Your task to perform on an android device: open app "HBO Max: Stream TV & Movies" (install if not already installed), go to login, and select forgot password Image 0: 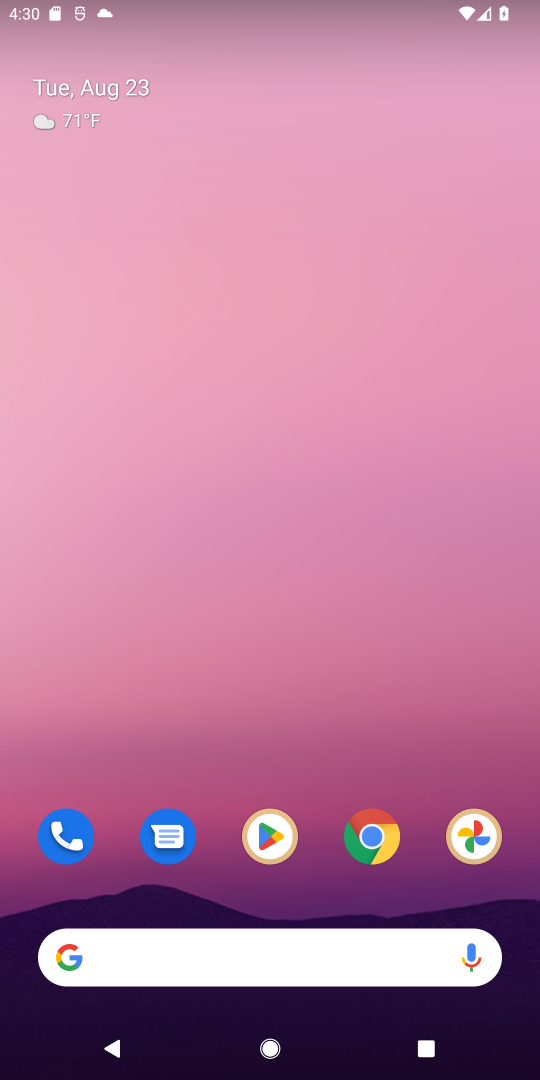
Step 0: click (272, 837)
Your task to perform on an android device: open app "HBO Max: Stream TV & Movies" (install if not already installed), go to login, and select forgot password Image 1: 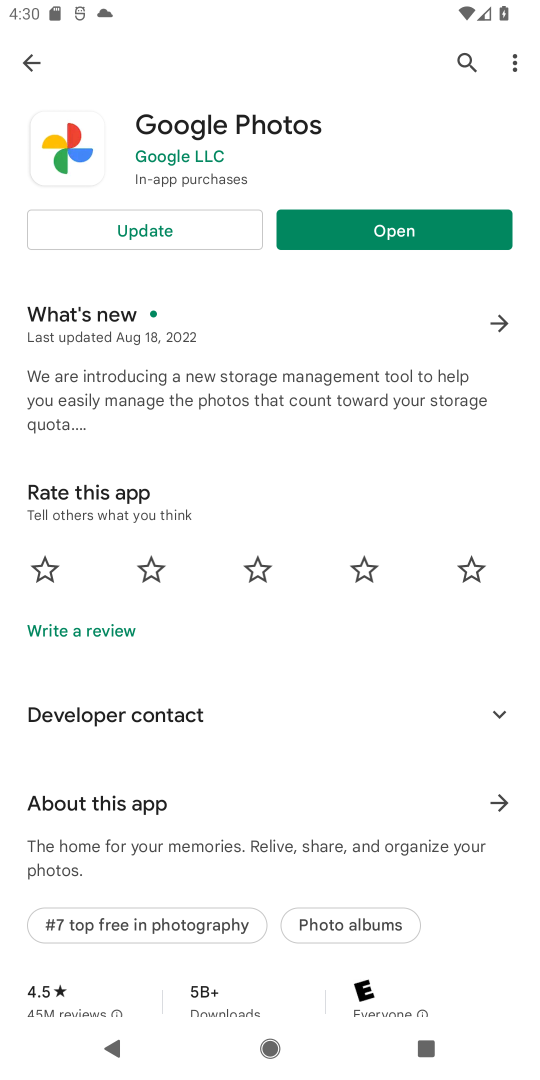
Step 1: click (457, 57)
Your task to perform on an android device: open app "HBO Max: Stream TV & Movies" (install if not already installed), go to login, and select forgot password Image 2: 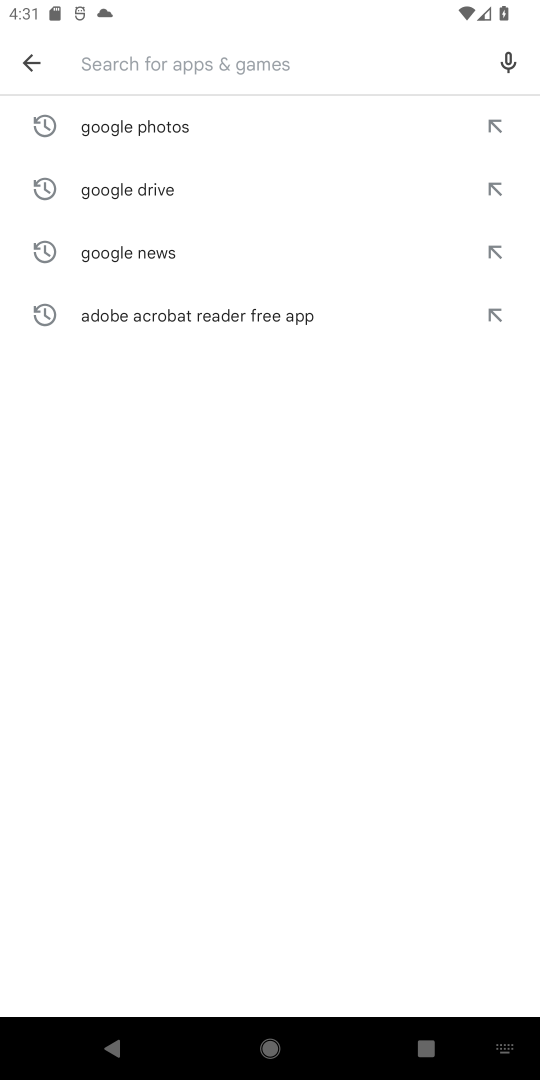
Step 2: type "HBO Max: Stream TV & Movies"
Your task to perform on an android device: open app "HBO Max: Stream TV & Movies" (install if not already installed), go to login, and select forgot password Image 3: 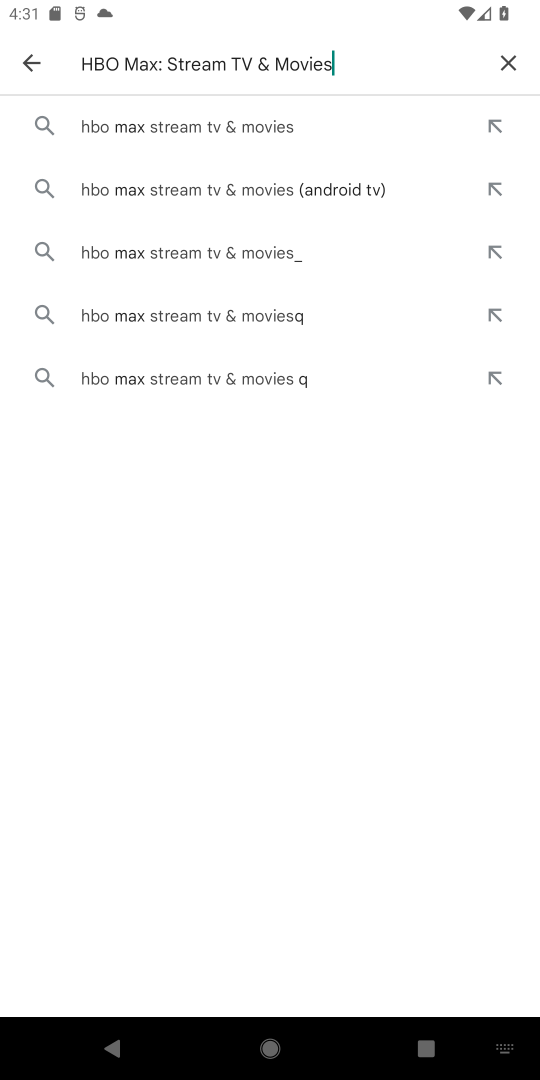
Step 3: click (153, 131)
Your task to perform on an android device: open app "HBO Max: Stream TV & Movies" (install if not already installed), go to login, and select forgot password Image 4: 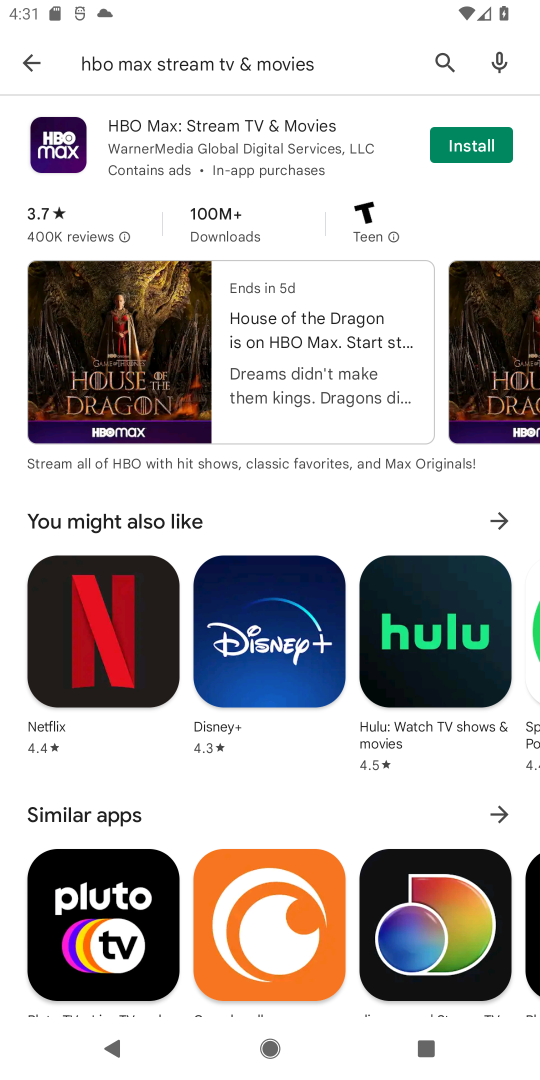
Step 4: click (475, 148)
Your task to perform on an android device: open app "HBO Max: Stream TV & Movies" (install if not already installed), go to login, and select forgot password Image 5: 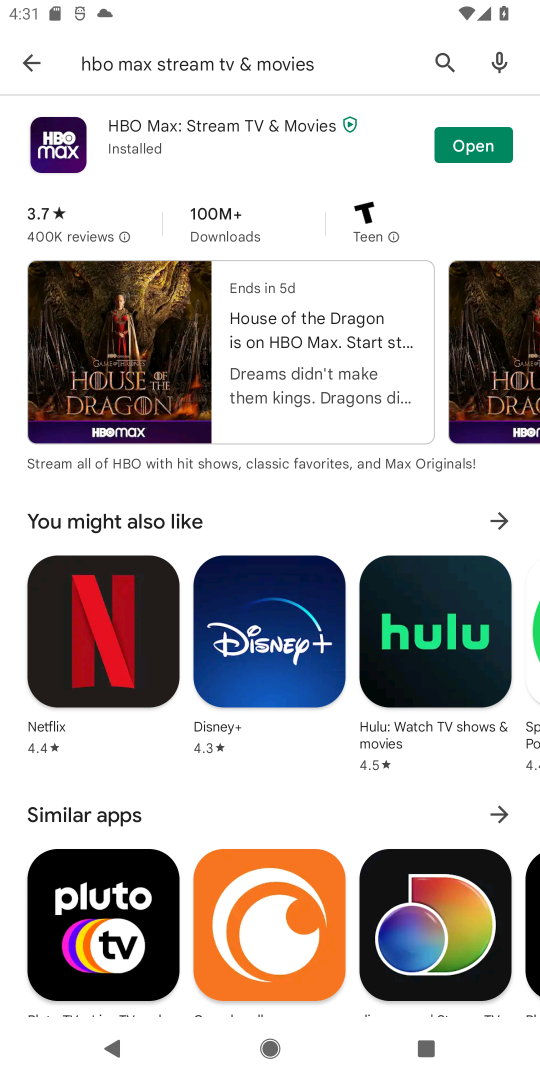
Step 5: click (167, 121)
Your task to perform on an android device: open app "HBO Max: Stream TV & Movies" (install if not already installed), go to login, and select forgot password Image 6: 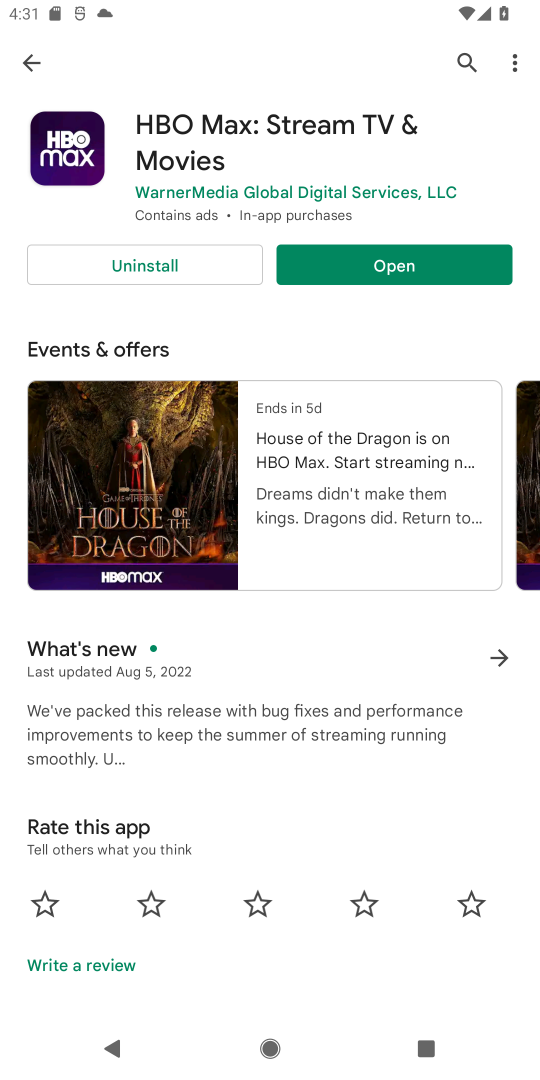
Step 6: click (394, 268)
Your task to perform on an android device: open app "HBO Max: Stream TV & Movies" (install if not already installed), go to login, and select forgot password Image 7: 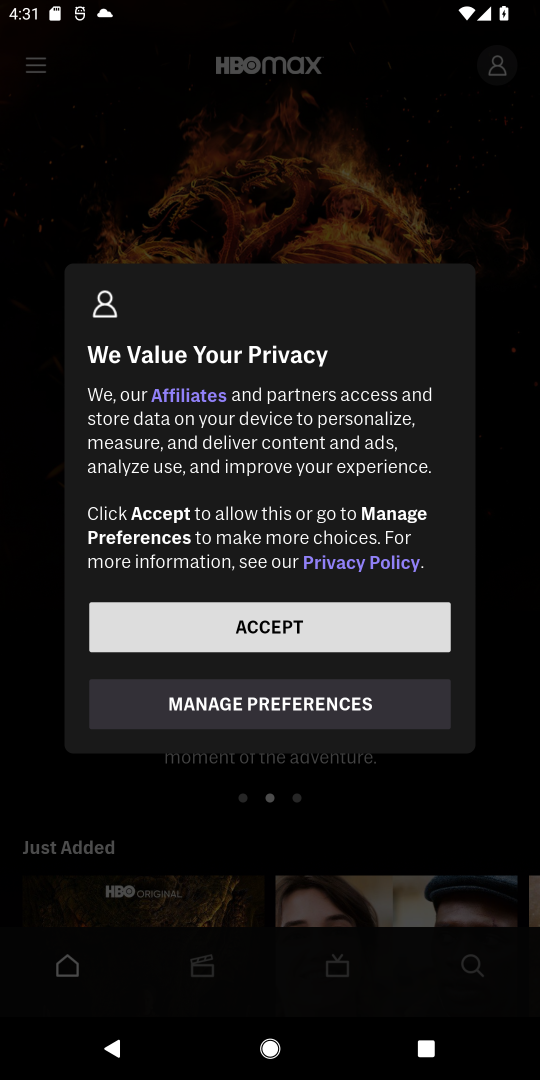
Step 7: click (288, 625)
Your task to perform on an android device: open app "HBO Max: Stream TV & Movies" (install if not already installed), go to login, and select forgot password Image 8: 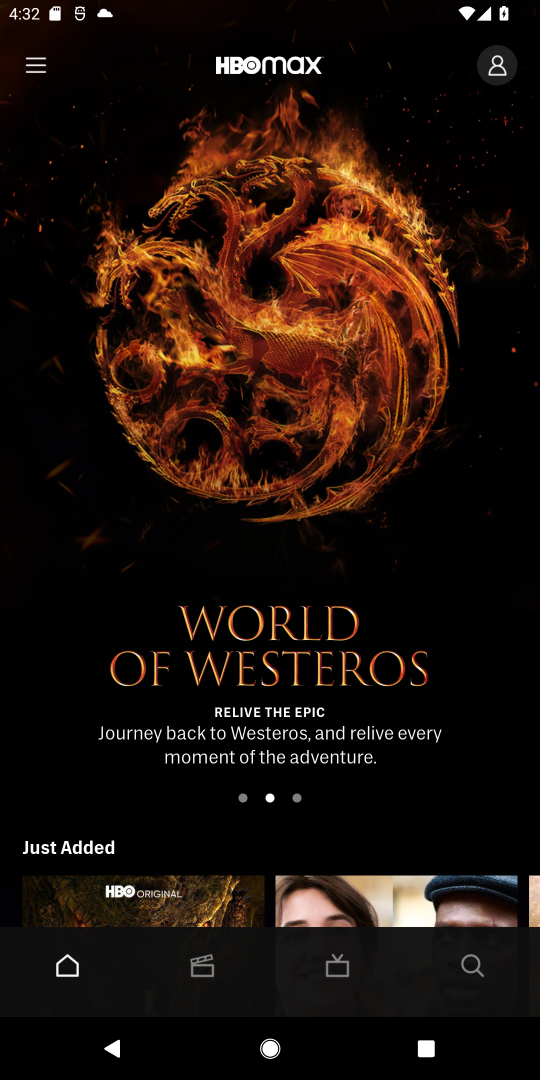
Step 8: click (499, 65)
Your task to perform on an android device: open app "HBO Max: Stream TV & Movies" (install if not already installed), go to login, and select forgot password Image 9: 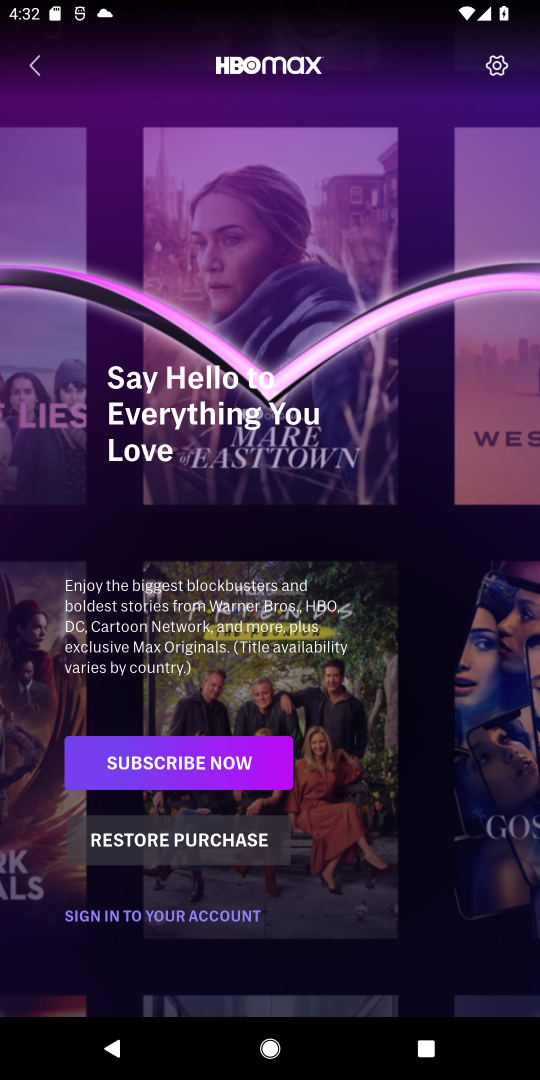
Step 9: click (135, 916)
Your task to perform on an android device: open app "HBO Max: Stream TV & Movies" (install if not already installed), go to login, and select forgot password Image 10: 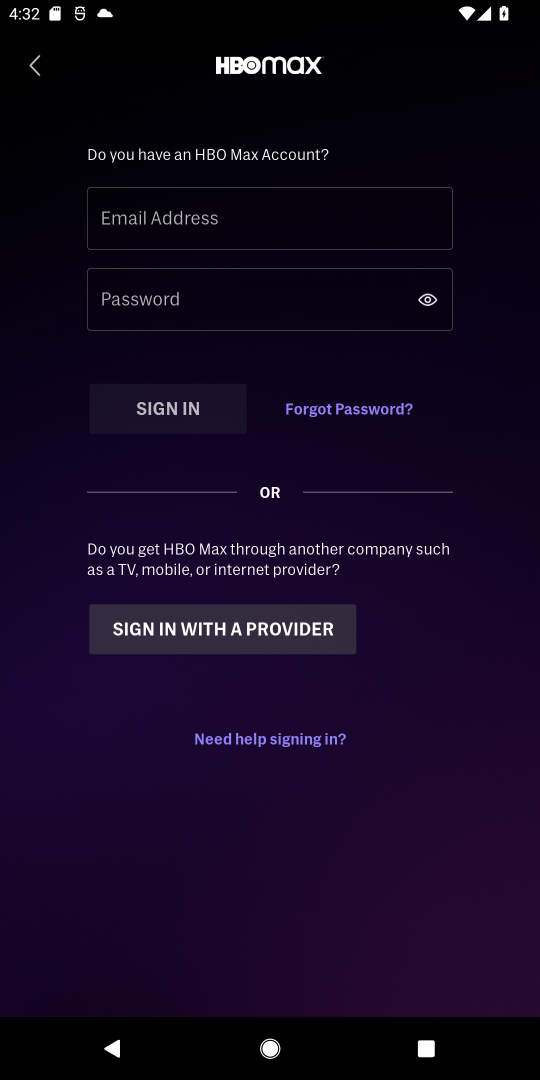
Step 10: click (341, 409)
Your task to perform on an android device: open app "HBO Max: Stream TV & Movies" (install if not already installed), go to login, and select forgot password Image 11: 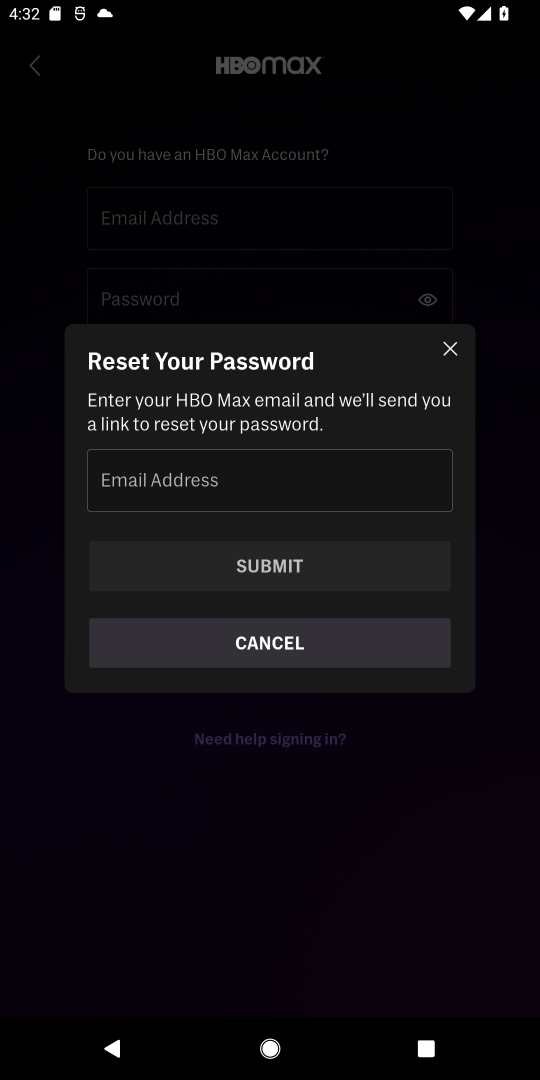
Step 11: task complete